Your task to perform on an android device: Open the web browser Image 0: 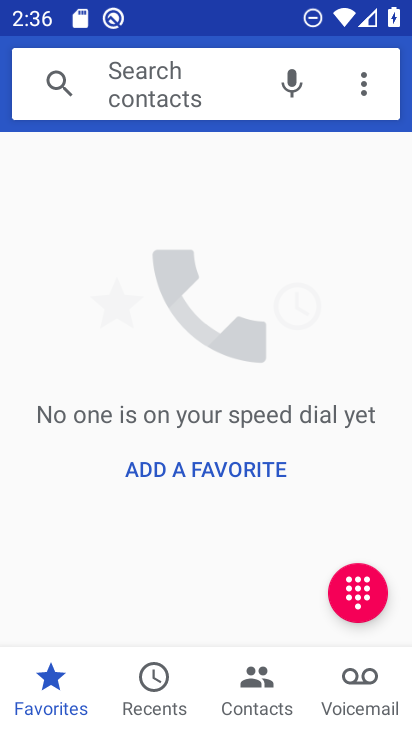
Step 0: press home button
Your task to perform on an android device: Open the web browser Image 1: 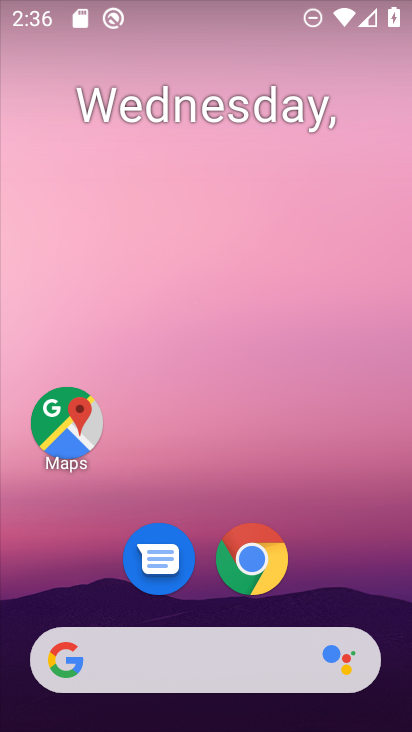
Step 1: drag from (370, 569) to (305, 209)
Your task to perform on an android device: Open the web browser Image 2: 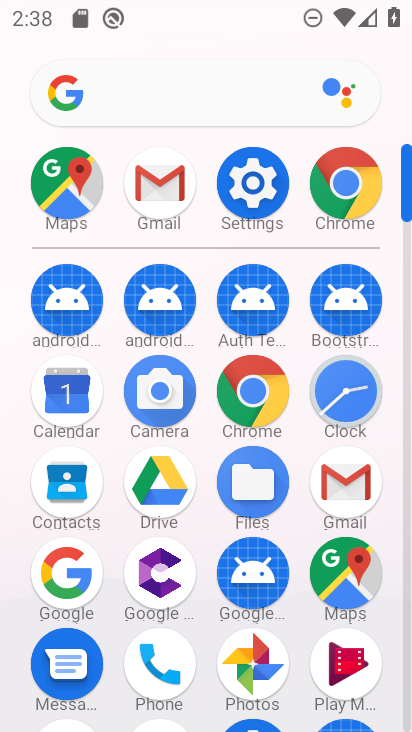
Step 2: click (338, 200)
Your task to perform on an android device: Open the web browser Image 3: 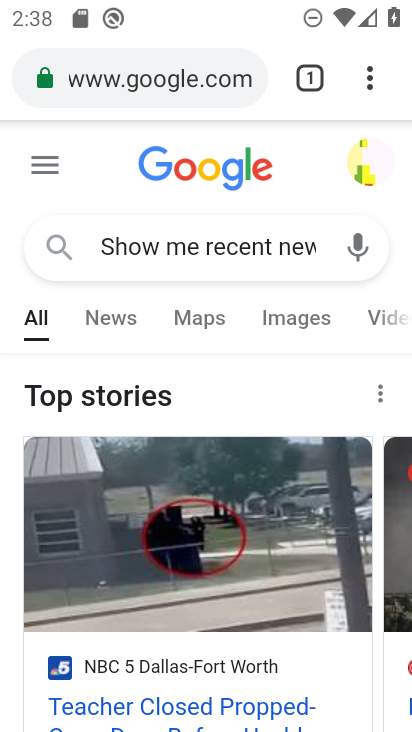
Step 3: click (190, 71)
Your task to perform on an android device: Open the web browser Image 4: 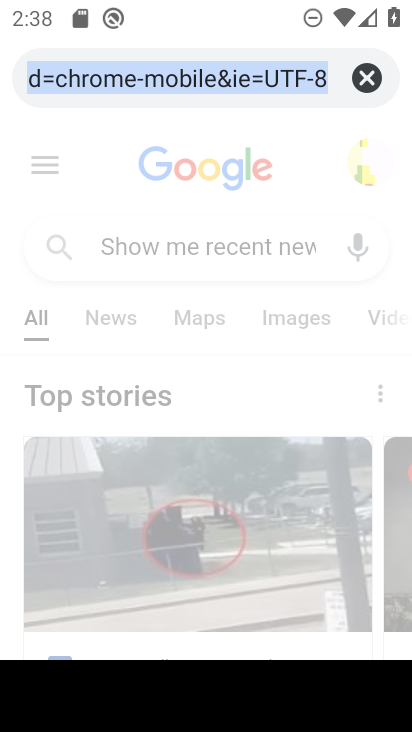
Step 4: click (375, 72)
Your task to perform on an android device: Open the web browser Image 5: 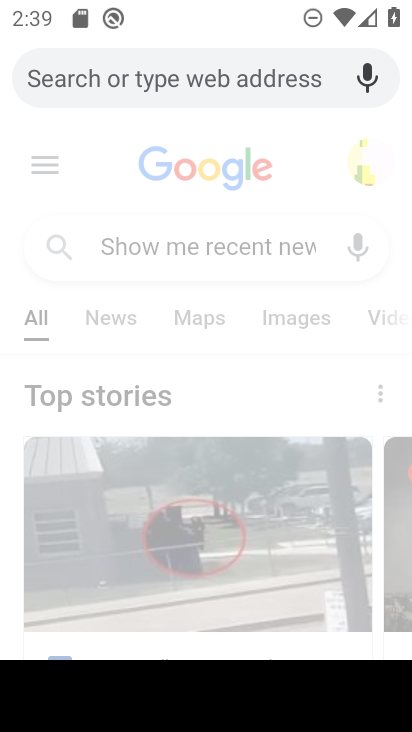
Step 5: type " web browser"
Your task to perform on an android device: Open the web browser Image 6: 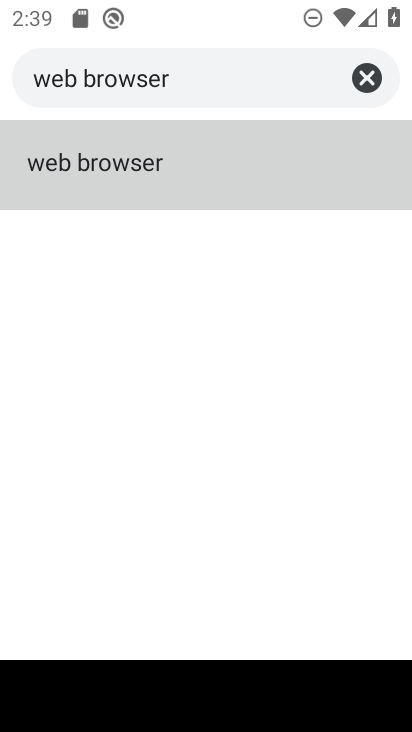
Step 6: click (110, 166)
Your task to perform on an android device: Open the web browser Image 7: 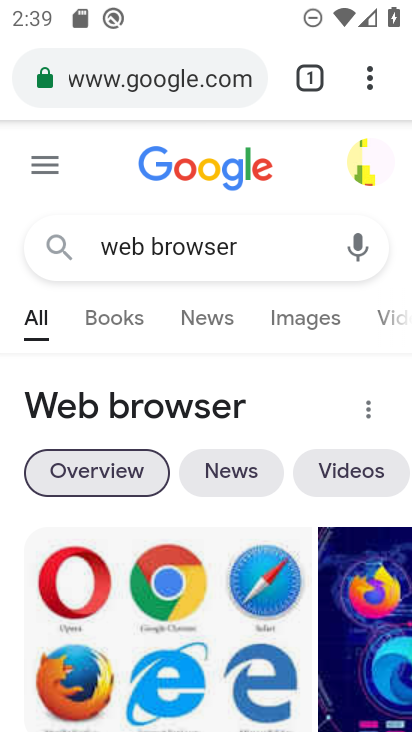
Step 7: task complete